Your task to perform on an android device: Set the phone to "Do not disturb". Image 0: 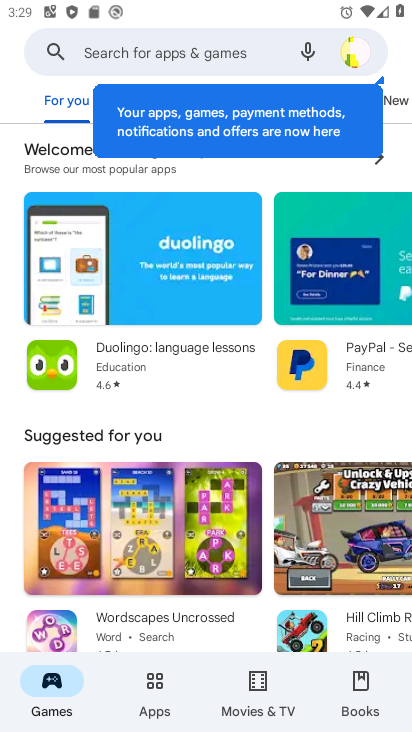
Step 0: drag from (182, 5) to (182, 580)
Your task to perform on an android device: Set the phone to "Do not disturb". Image 1: 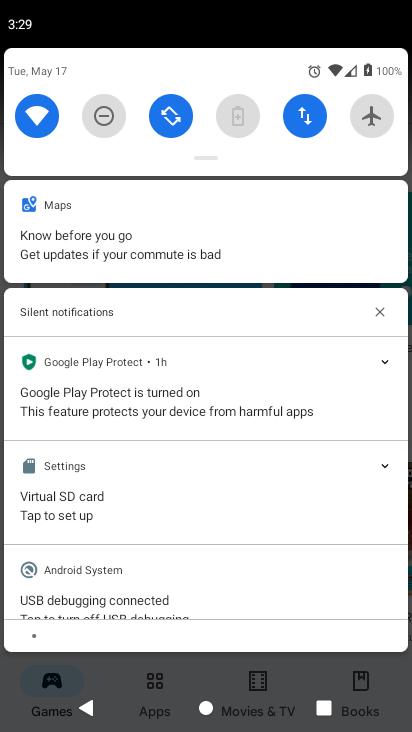
Step 1: click (100, 116)
Your task to perform on an android device: Set the phone to "Do not disturb". Image 2: 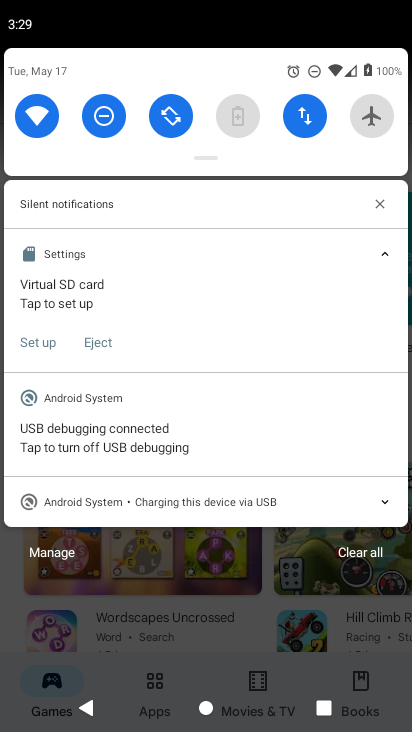
Step 2: task complete